Your task to perform on an android device: Go to settings Image 0: 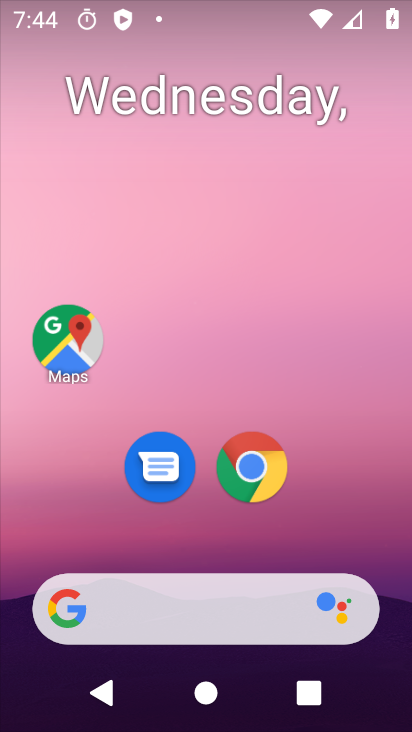
Step 0: drag from (362, 443) to (339, 138)
Your task to perform on an android device: Go to settings Image 1: 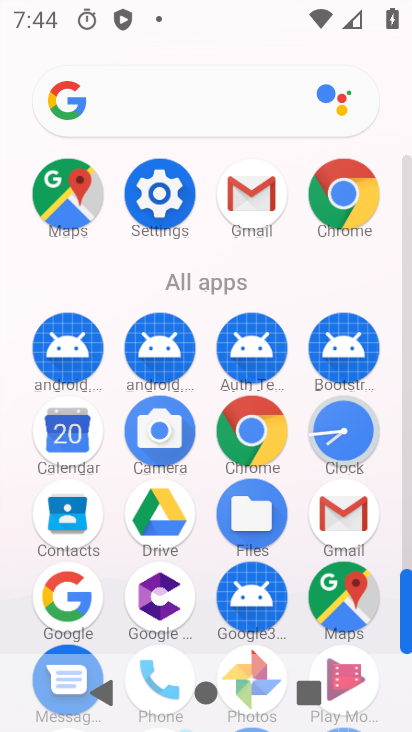
Step 1: click (154, 184)
Your task to perform on an android device: Go to settings Image 2: 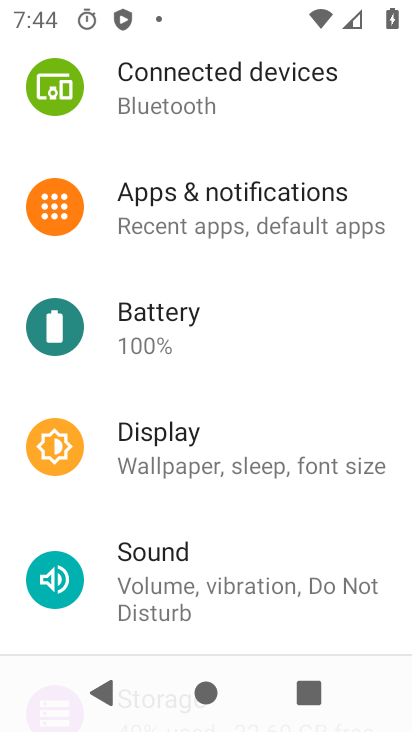
Step 2: task complete